Your task to perform on an android device: turn on the 12-hour format for clock Image 0: 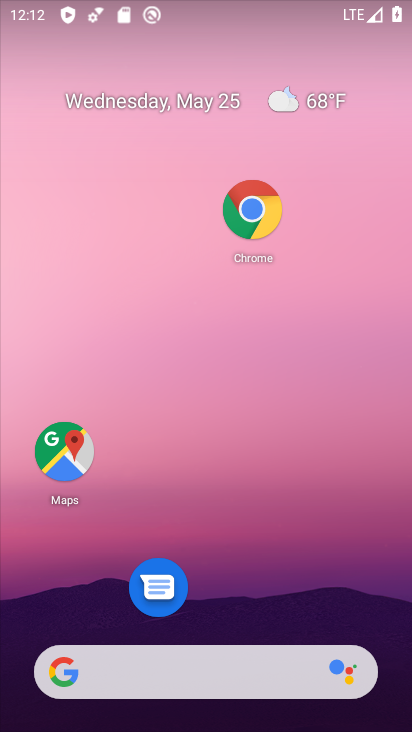
Step 0: press home button
Your task to perform on an android device: turn on the 12-hour format for clock Image 1: 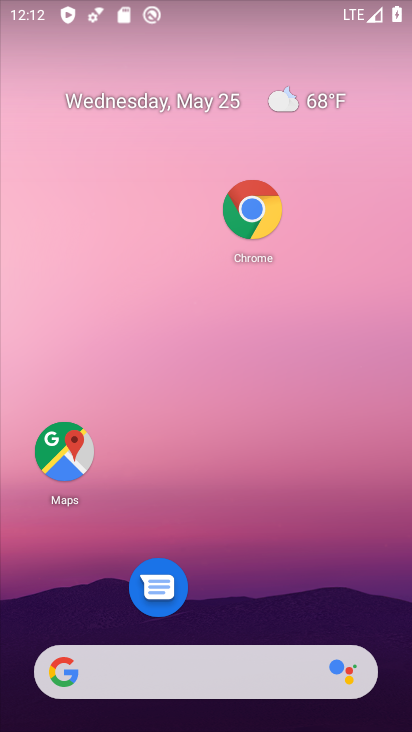
Step 1: drag from (233, 609) to (286, 148)
Your task to perform on an android device: turn on the 12-hour format for clock Image 2: 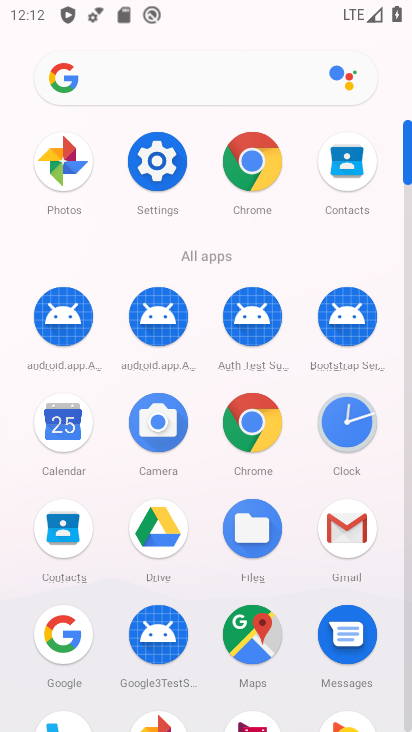
Step 2: click (350, 414)
Your task to perform on an android device: turn on the 12-hour format for clock Image 3: 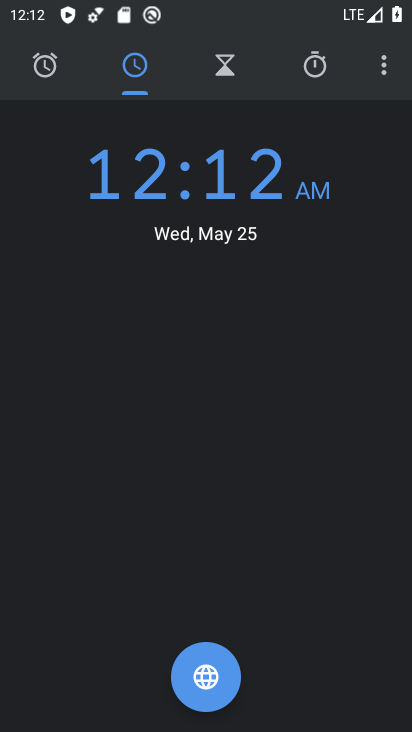
Step 3: click (383, 67)
Your task to perform on an android device: turn on the 12-hour format for clock Image 4: 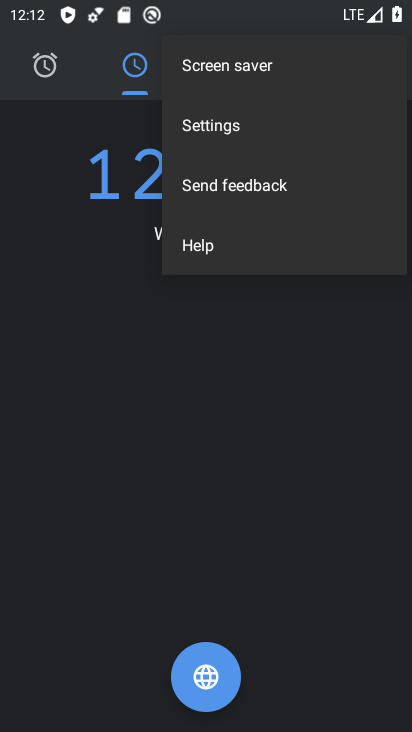
Step 4: click (251, 125)
Your task to perform on an android device: turn on the 12-hour format for clock Image 5: 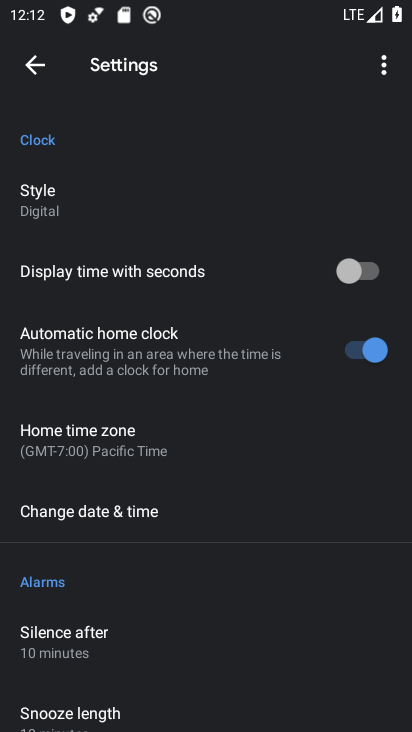
Step 5: click (178, 509)
Your task to perform on an android device: turn on the 12-hour format for clock Image 6: 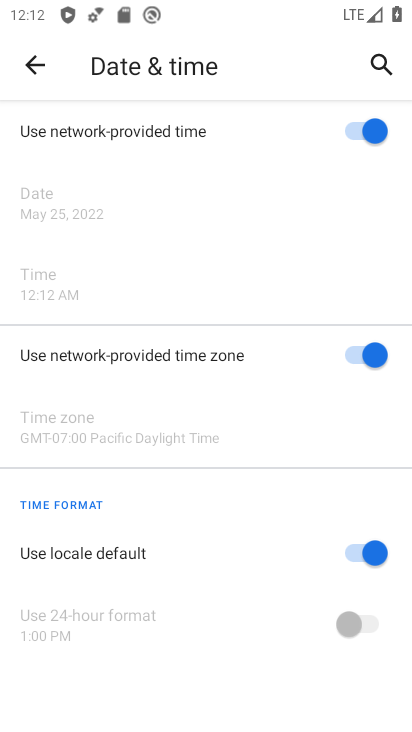
Step 6: task complete